Your task to perform on an android device: check data usage Image 0: 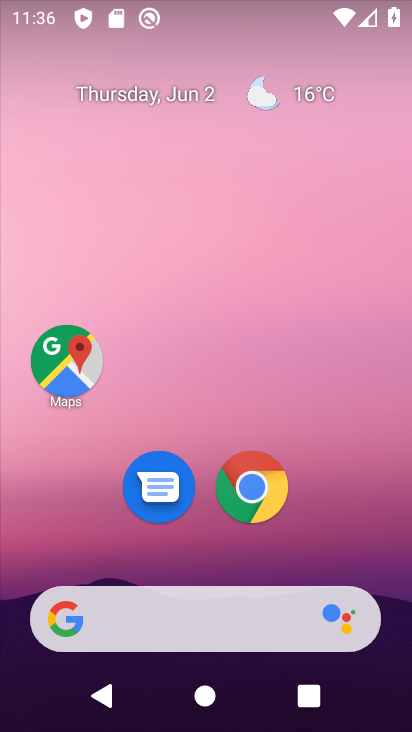
Step 0: press home button
Your task to perform on an android device: check data usage Image 1: 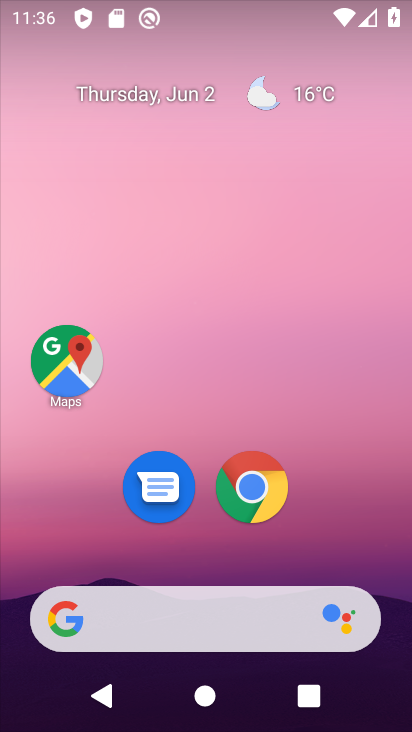
Step 1: drag from (320, 575) to (187, 69)
Your task to perform on an android device: check data usage Image 2: 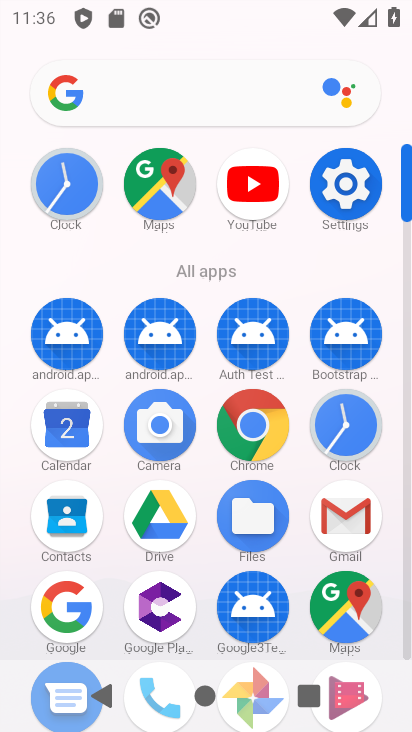
Step 2: click (359, 192)
Your task to perform on an android device: check data usage Image 3: 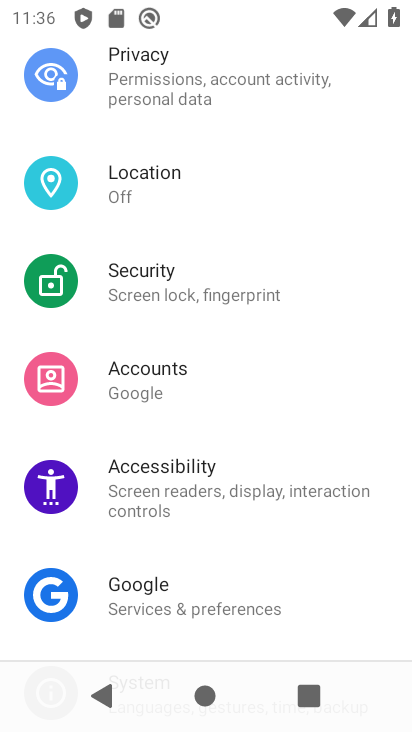
Step 3: drag from (281, 230) to (193, 726)
Your task to perform on an android device: check data usage Image 4: 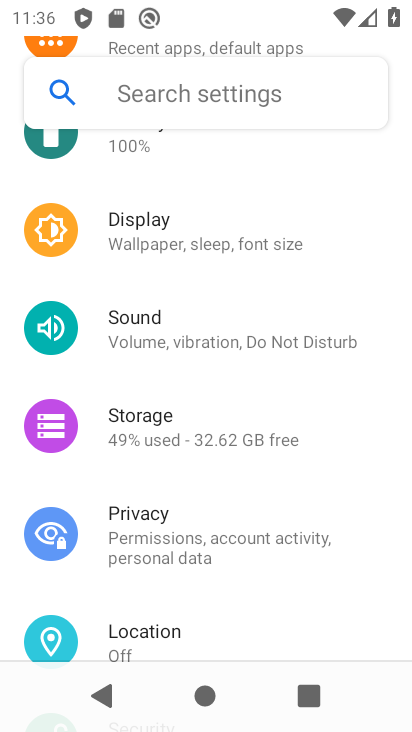
Step 4: drag from (133, 157) to (258, 719)
Your task to perform on an android device: check data usage Image 5: 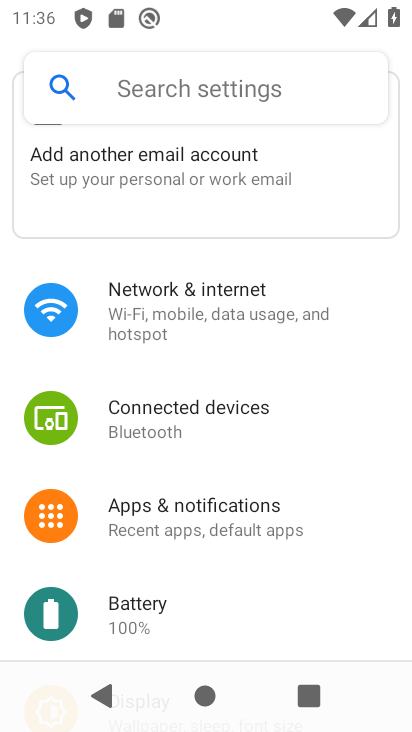
Step 5: click (227, 317)
Your task to perform on an android device: check data usage Image 6: 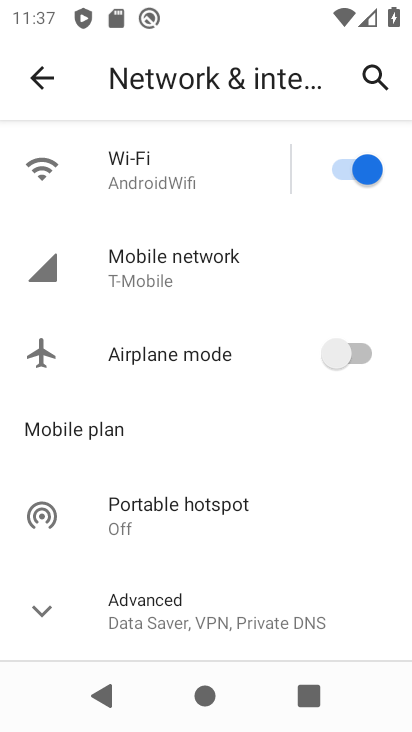
Step 6: drag from (313, 538) to (296, 468)
Your task to perform on an android device: check data usage Image 7: 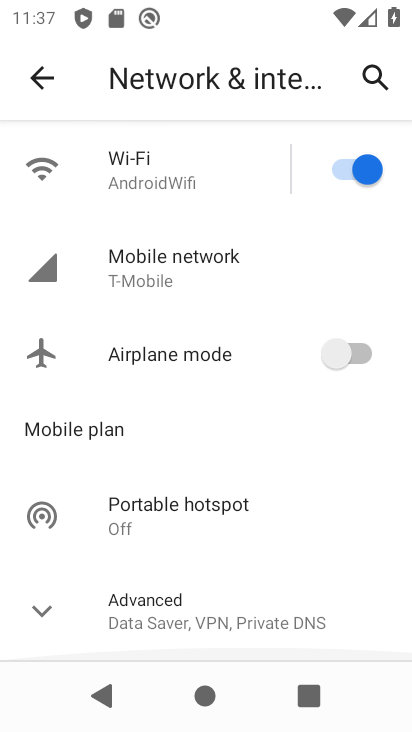
Step 7: click (121, 258)
Your task to perform on an android device: check data usage Image 8: 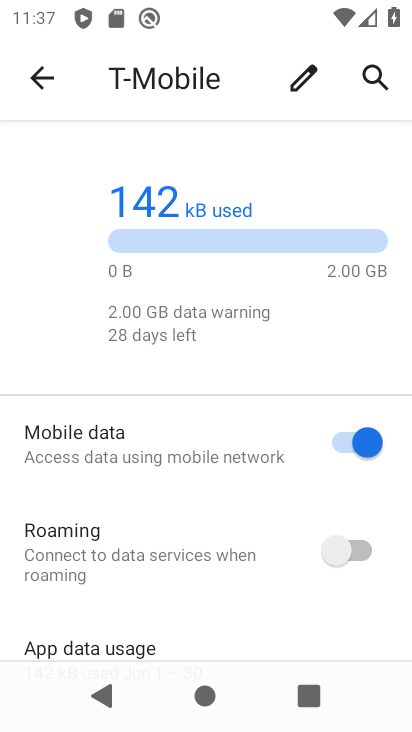
Step 8: drag from (239, 533) to (103, 266)
Your task to perform on an android device: check data usage Image 9: 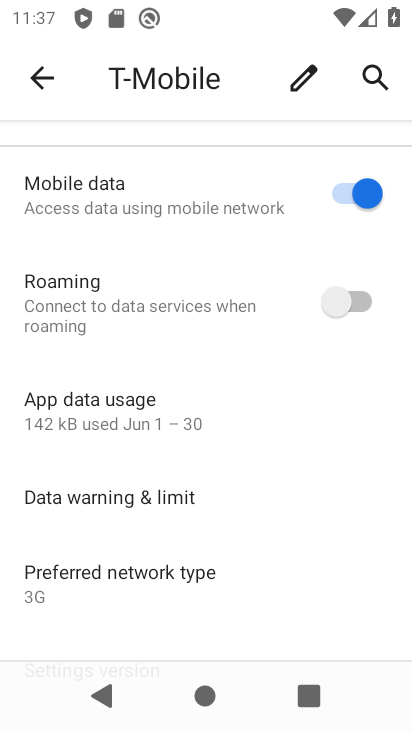
Step 9: click (88, 415)
Your task to perform on an android device: check data usage Image 10: 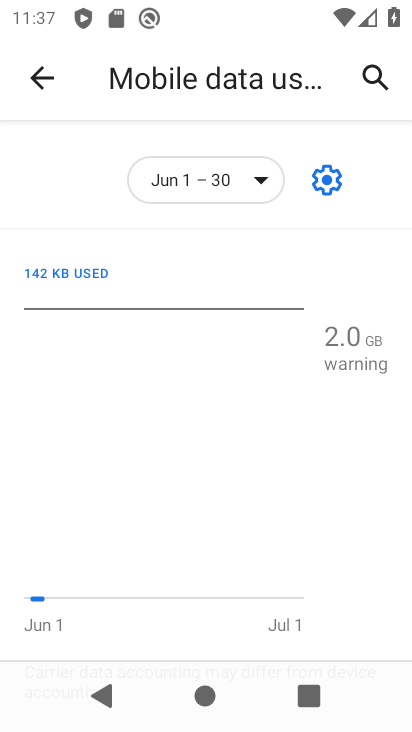
Step 10: task complete